Your task to perform on an android device: Toggle the flashlight Image 0: 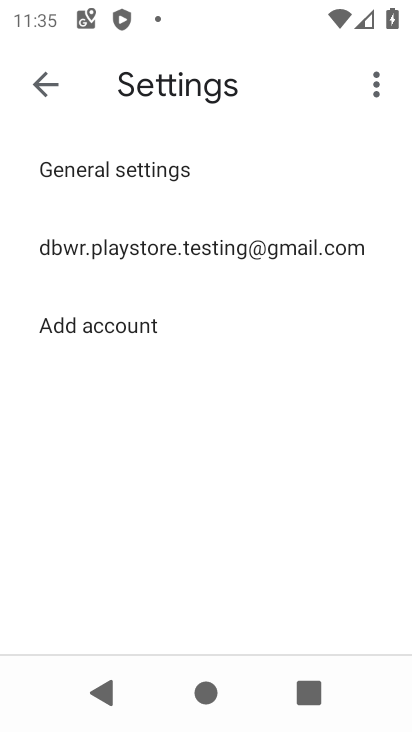
Step 0: press home button
Your task to perform on an android device: Toggle the flashlight Image 1: 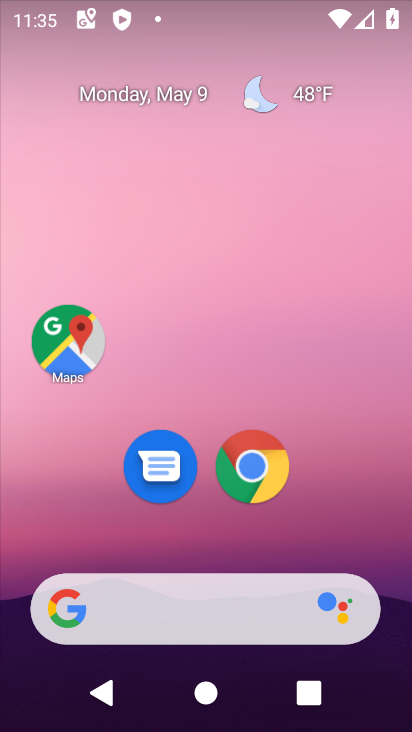
Step 1: drag from (205, 14) to (294, 614)
Your task to perform on an android device: Toggle the flashlight Image 2: 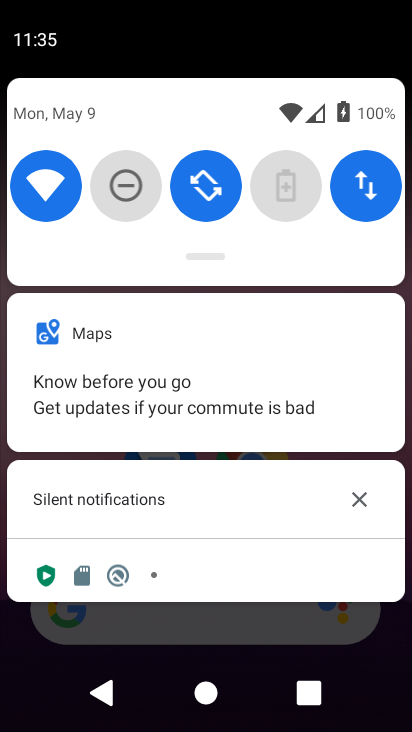
Step 2: drag from (209, 252) to (214, 577)
Your task to perform on an android device: Toggle the flashlight Image 3: 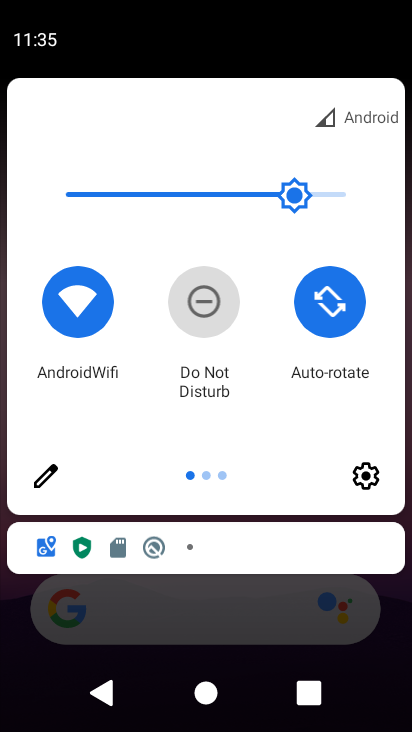
Step 3: click (40, 478)
Your task to perform on an android device: Toggle the flashlight Image 4: 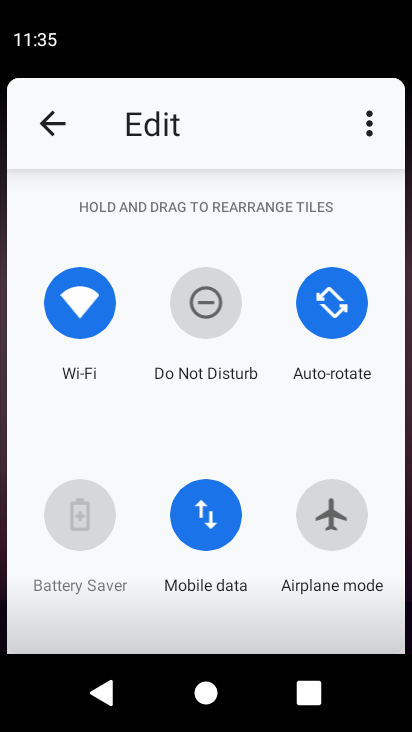
Step 4: task complete